Your task to perform on an android device: Open calendar and show me the second week of next month Image 0: 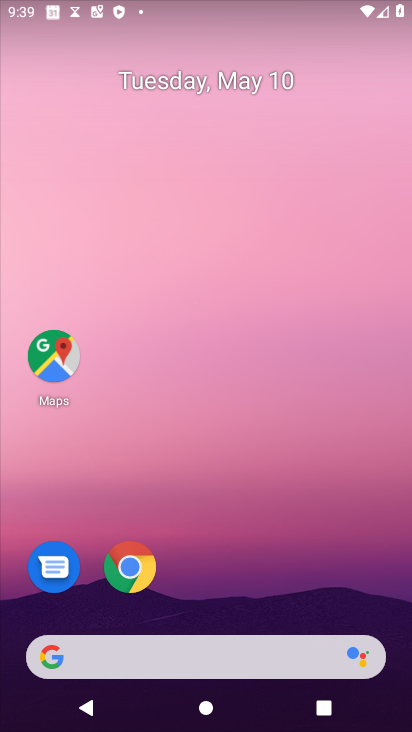
Step 0: press home button
Your task to perform on an android device: Open calendar and show me the second week of next month Image 1: 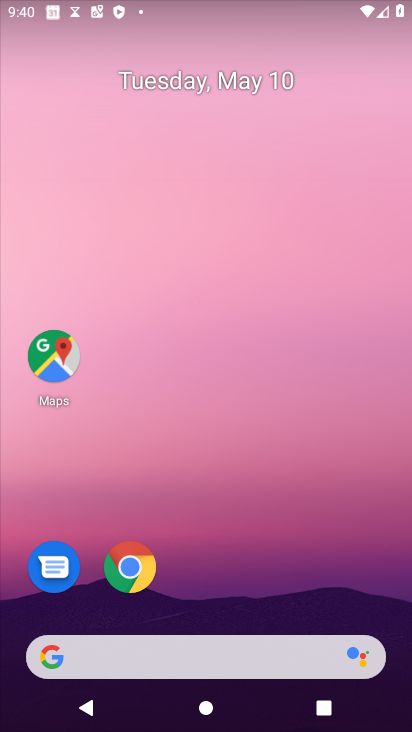
Step 1: drag from (36, 585) to (225, 169)
Your task to perform on an android device: Open calendar and show me the second week of next month Image 2: 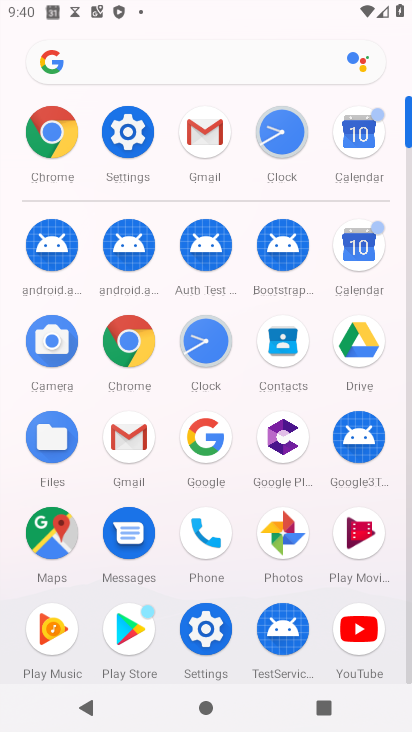
Step 2: click (370, 147)
Your task to perform on an android device: Open calendar and show me the second week of next month Image 3: 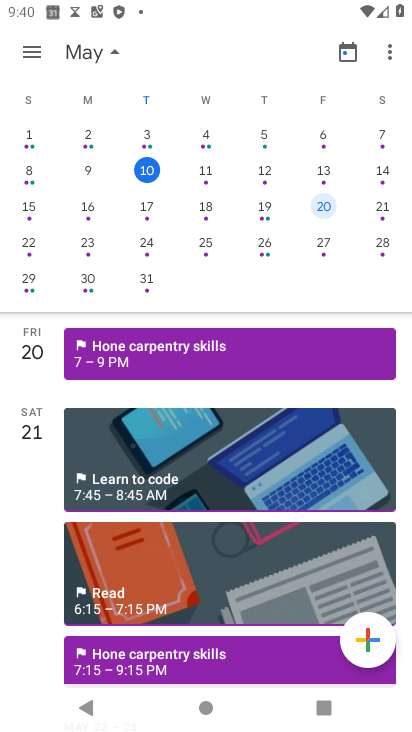
Step 3: drag from (354, 201) to (20, 194)
Your task to perform on an android device: Open calendar and show me the second week of next month Image 4: 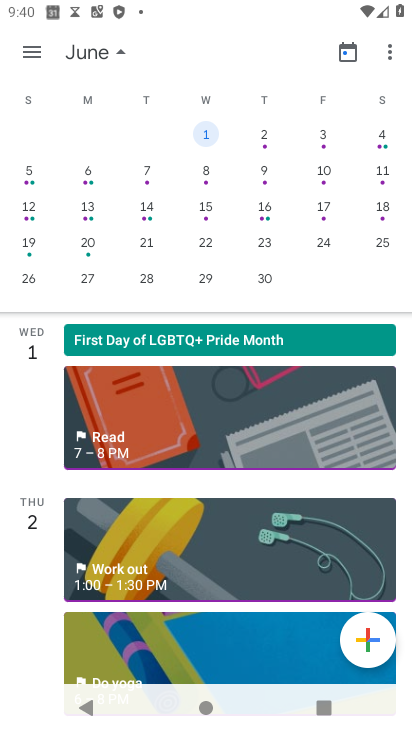
Step 4: click (96, 178)
Your task to perform on an android device: Open calendar and show me the second week of next month Image 5: 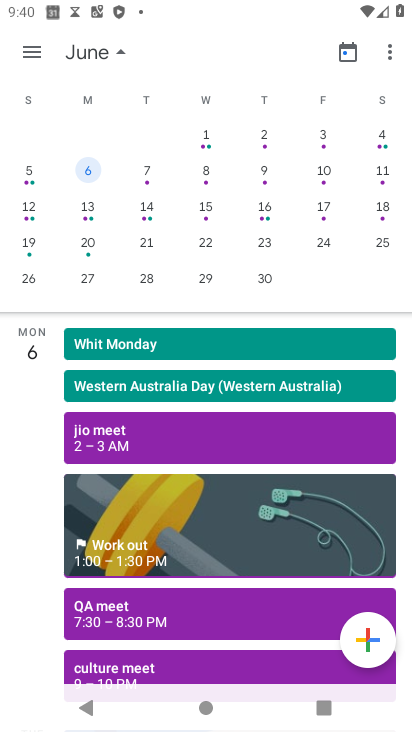
Step 5: click (154, 171)
Your task to perform on an android device: Open calendar and show me the second week of next month Image 6: 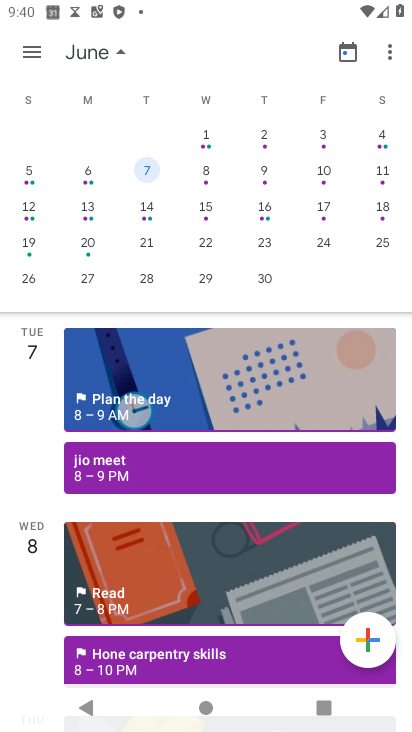
Step 6: click (214, 177)
Your task to perform on an android device: Open calendar and show me the second week of next month Image 7: 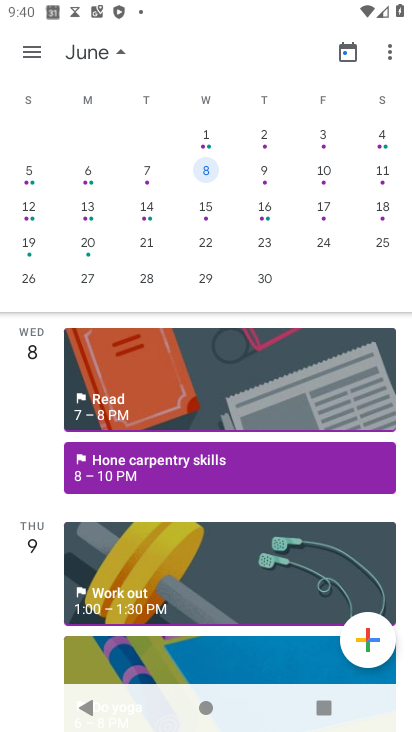
Step 7: click (264, 171)
Your task to perform on an android device: Open calendar and show me the second week of next month Image 8: 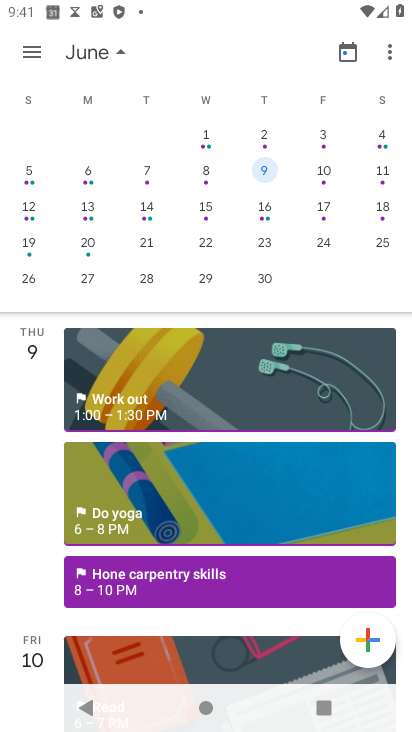
Step 8: click (334, 179)
Your task to perform on an android device: Open calendar and show me the second week of next month Image 9: 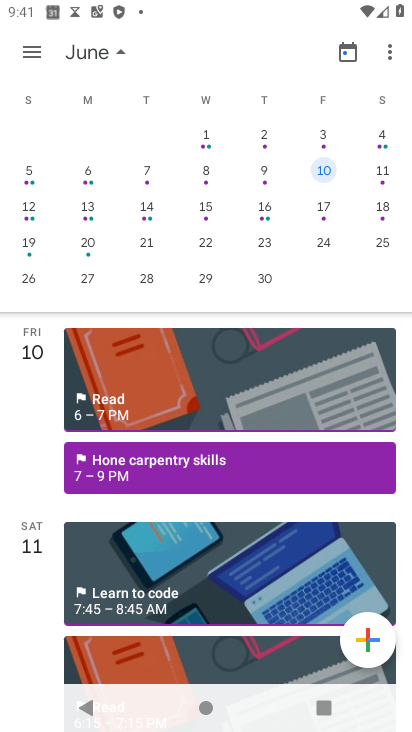
Step 9: task complete